Your task to perform on an android device: turn pop-ups on in chrome Image 0: 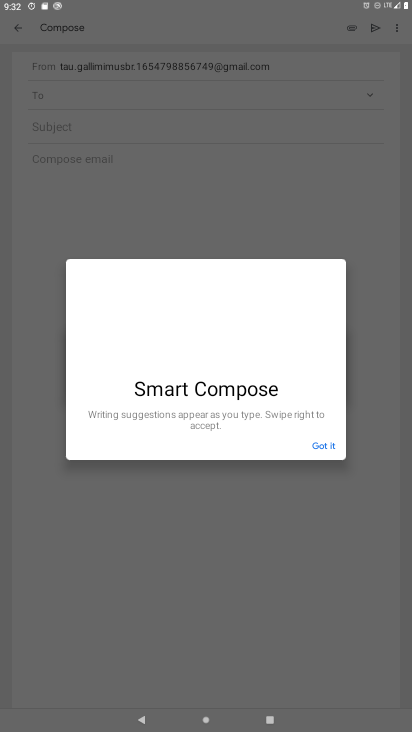
Step 0: press home button
Your task to perform on an android device: turn pop-ups on in chrome Image 1: 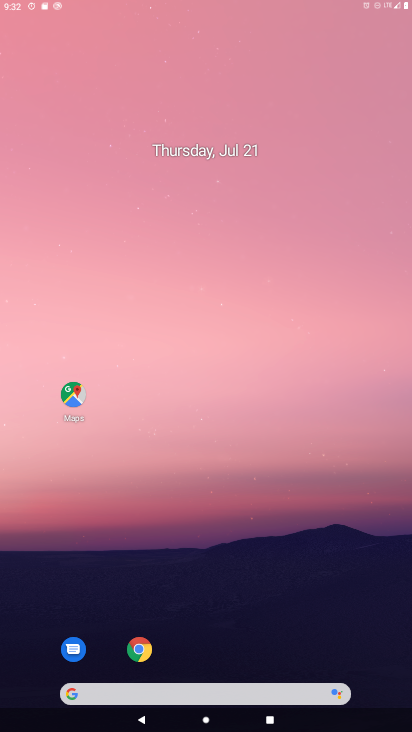
Step 1: drag from (388, 669) to (307, 187)
Your task to perform on an android device: turn pop-ups on in chrome Image 2: 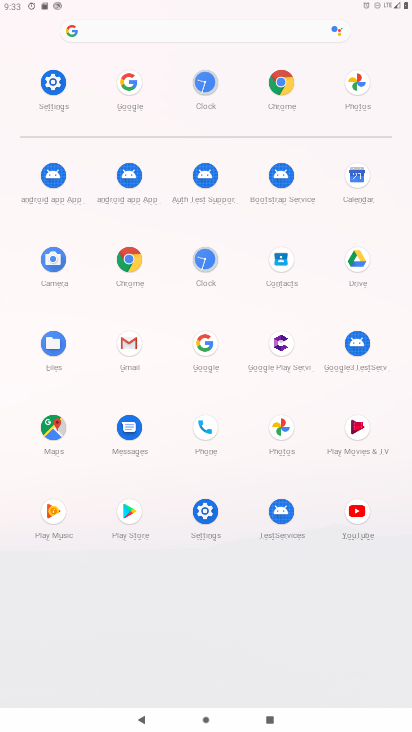
Step 2: click (134, 264)
Your task to perform on an android device: turn pop-ups on in chrome Image 3: 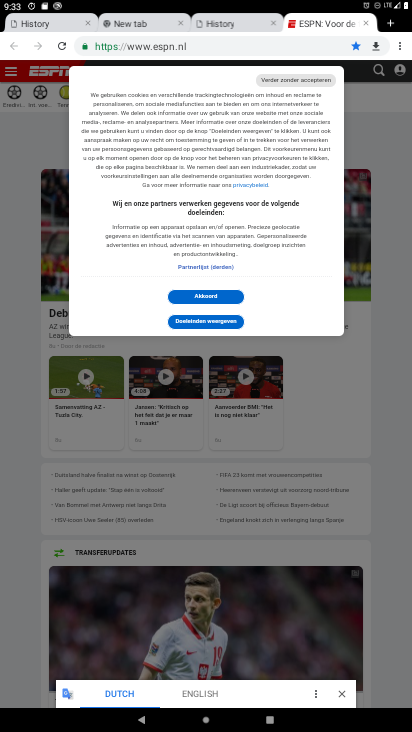
Step 3: click (394, 47)
Your task to perform on an android device: turn pop-ups on in chrome Image 4: 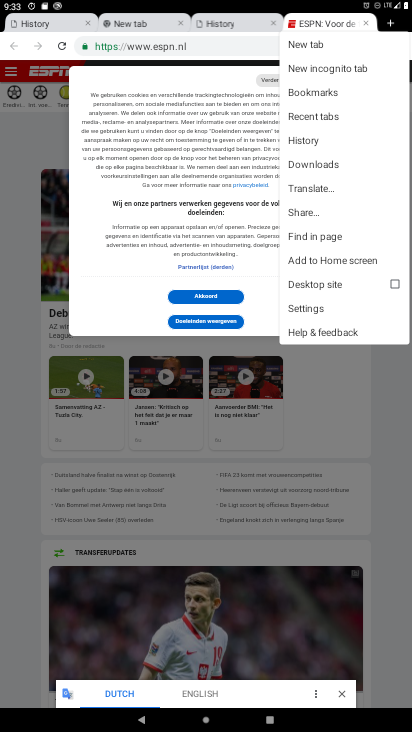
Step 4: click (310, 304)
Your task to perform on an android device: turn pop-ups on in chrome Image 5: 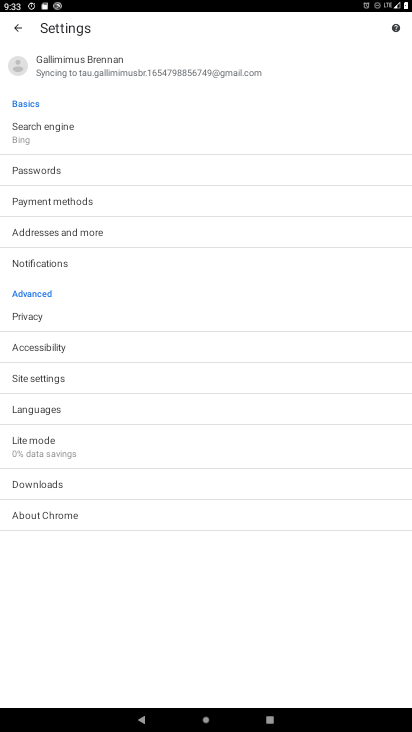
Step 5: click (50, 375)
Your task to perform on an android device: turn pop-ups on in chrome Image 6: 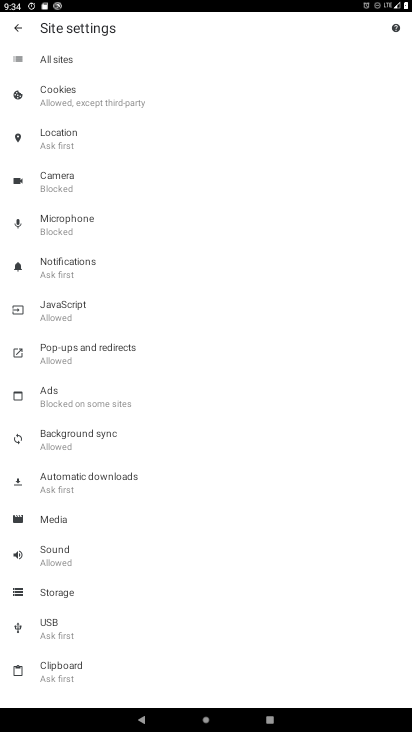
Step 6: click (69, 355)
Your task to perform on an android device: turn pop-ups on in chrome Image 7: 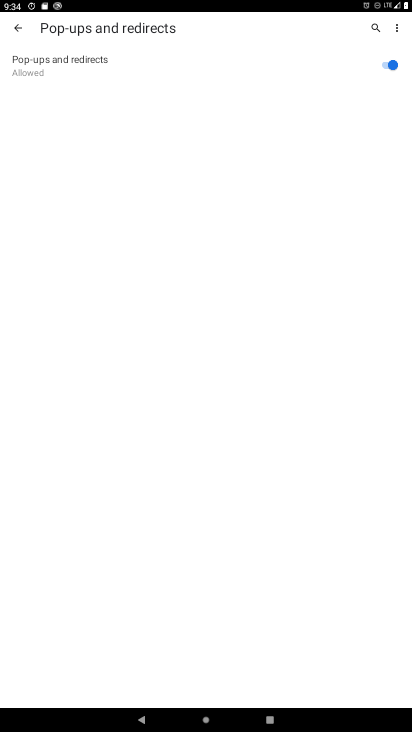
Step 7: task complete